Your task to perform on an android device: Open my contact list Image 0: 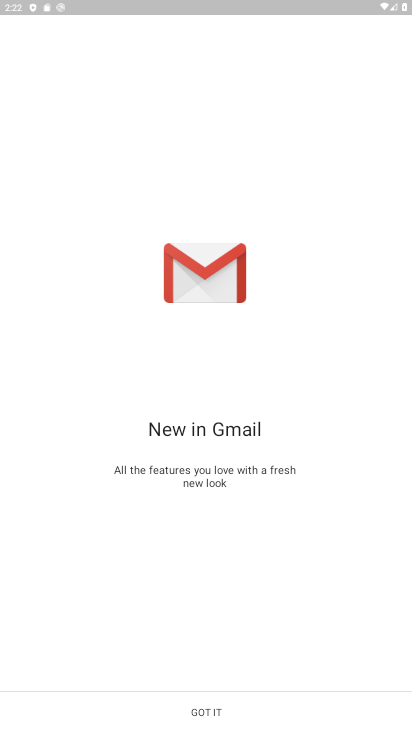
Step 0: press home button
Your task to perform on an android device: Open my contact list Image 1: 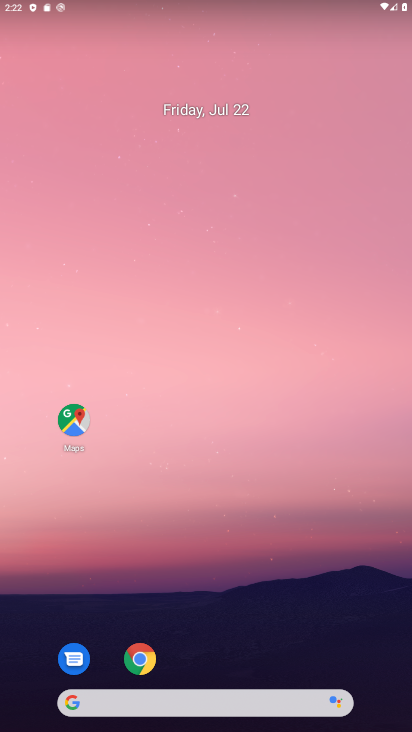
Step 1: drag from (256, 582) to (256, 128)
Your task to perform on an android device: Open my contact list Image 2: 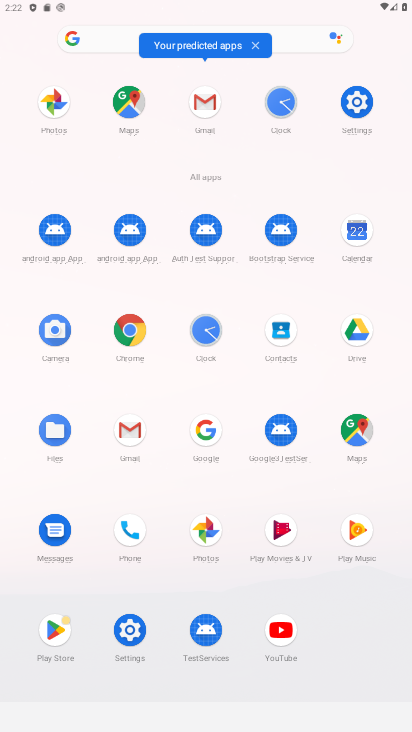
Step 2: click (279, 334)
Your task to perform on an android device: Open my contact list Image 3: 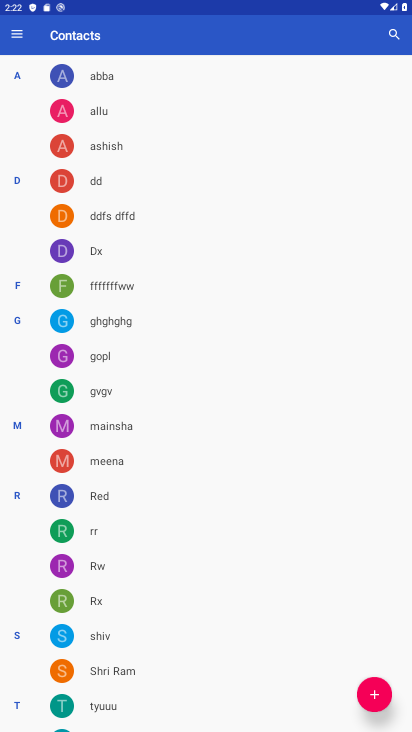
Step 3: task complete